Your task to perform on an android device: see tabs open on other devices in the chrome app Image 0: 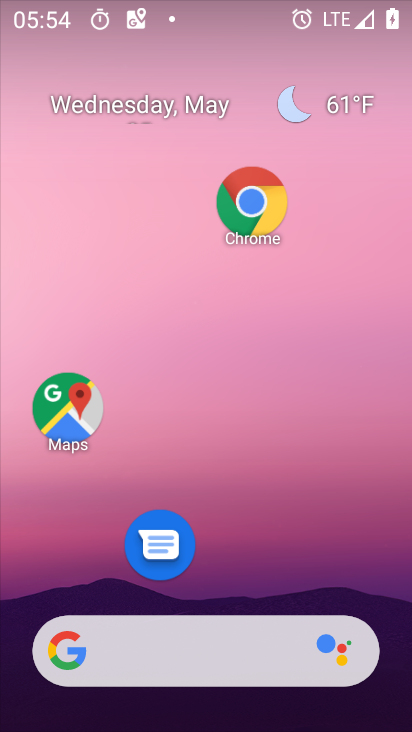
Step 0: click (252, 192)
Your task to perform on an android device: see tabs open on other devices in the chrome app Image 1: 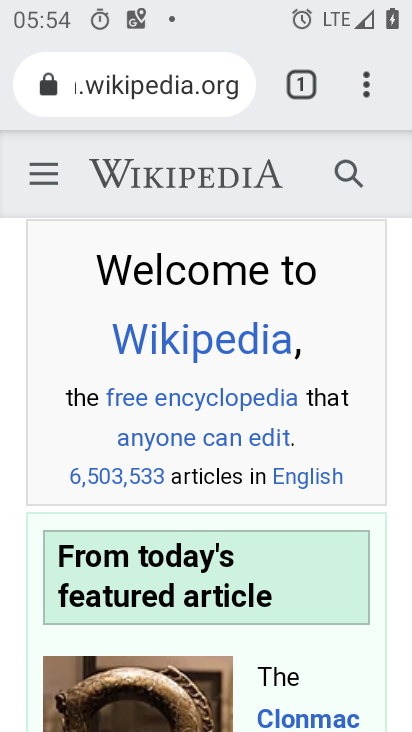
Step 1: click (294, 89)
Your task to perform on an android device: see tabs open on other devices in the chrome app Image 2: 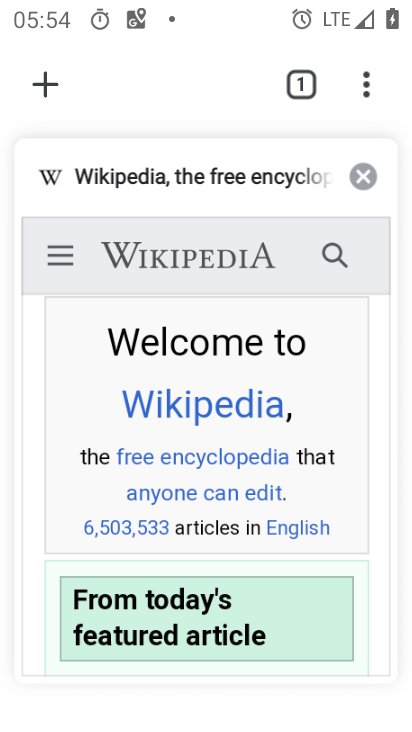
Step 2: task complete